Your task to perform on an android device: toggle data saver in the chrome app Image 0: 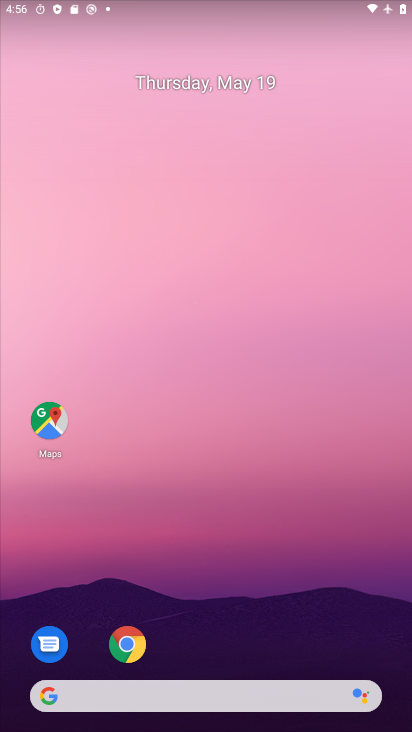
Step 0: click (123, 655)
Your task to perform on an android device: toggle data saver in the chrome app Image 1: 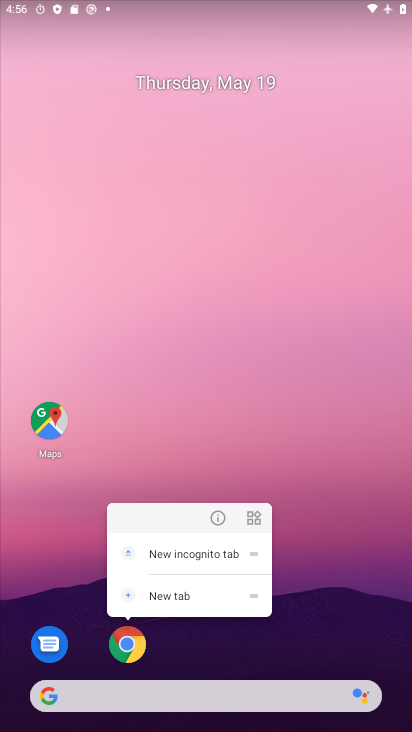
Step 1: click (123, 655)
Your task to perform on an android device: toggle data saver in the chrome app Image 2: 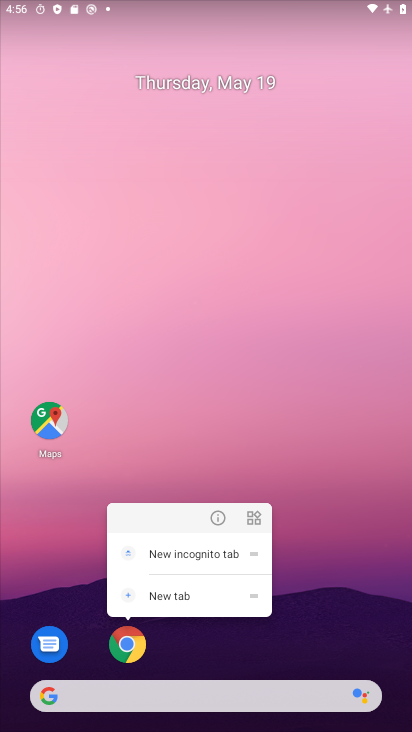
Step 2: click (131, 641)
Your task to perform on an android device: toggle data saver in the chrome app Image 3: 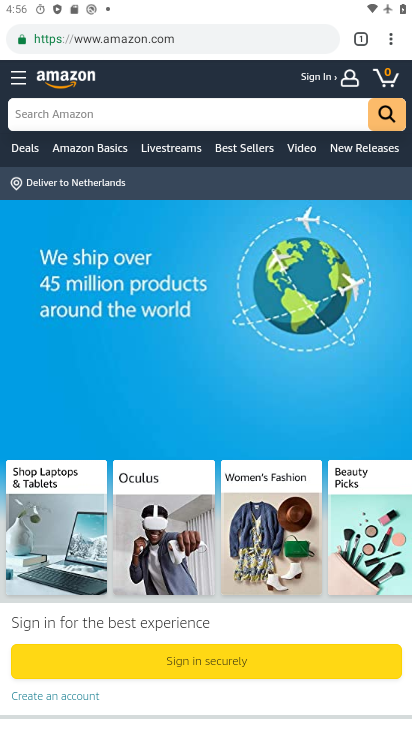
Step 3: click (390, 34)
Your task to perform on an android device: toggle data saver in the chrome app Image 4: 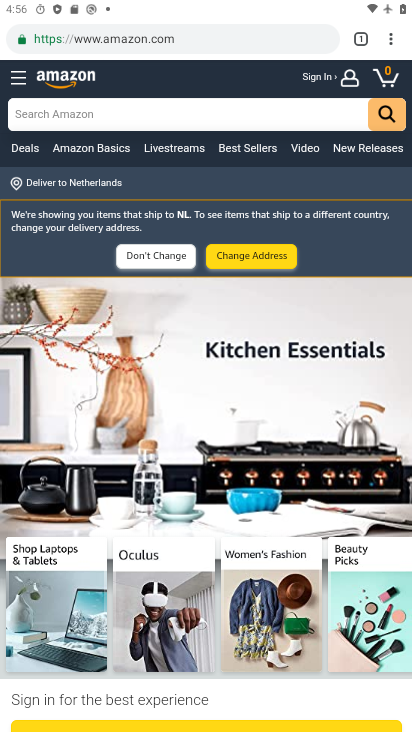
Step 4: click (390, 37)
Your task to perform on an android device: toggle data saver in the chrome app Image 5: 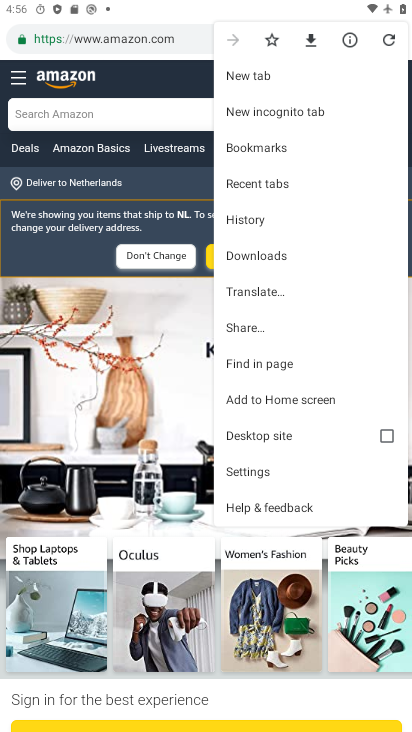
Step 5: click (248, 477)
Your task to perform on an android device: toggle data saver in the chrome app Image 6: 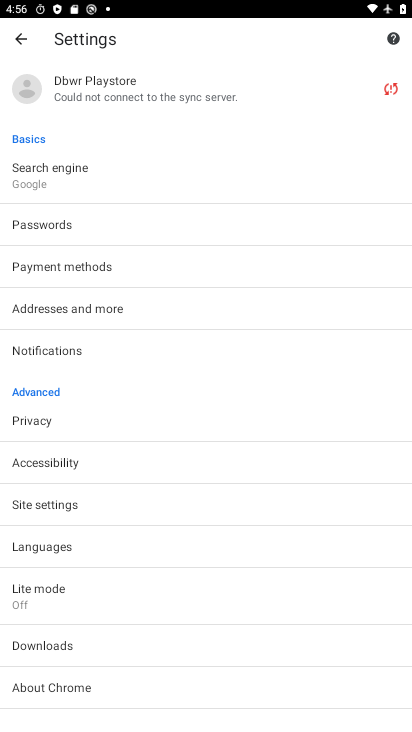
Step 6: drag from (133, 646) to (150, 189)
Your task to perform on an android device: toggle data saver in the chrome app Image 7: 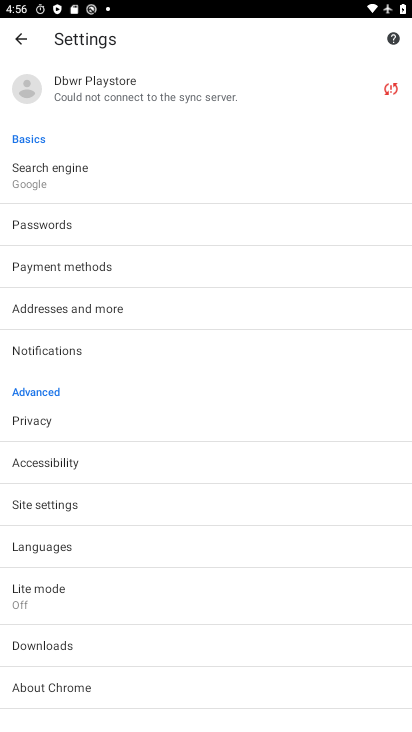
Step 7: click (31, 594)
Your task to perform on an android device: toggle data saver in the chrome app Image 8: 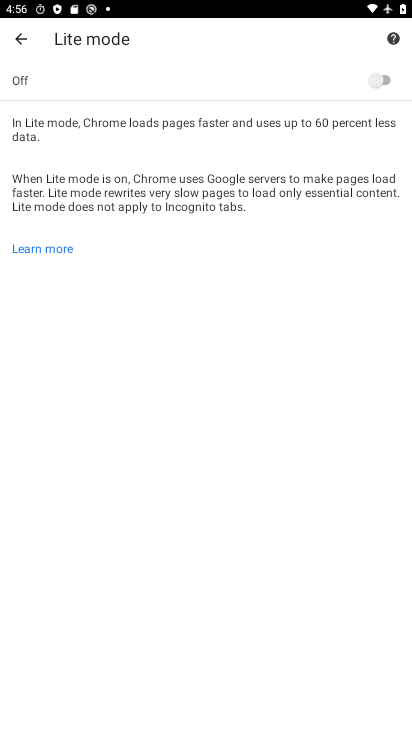
Step 8: click (377, 70)
Your task to perform on an android device: toggle data saver in the chrome app Image 9: 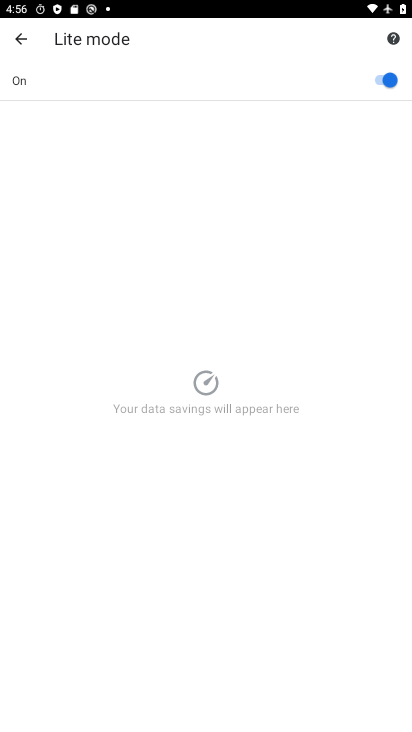
Step 9: task complete